Your task to perform on an android device: open chrome and create a bookmark for the current page Image 0: 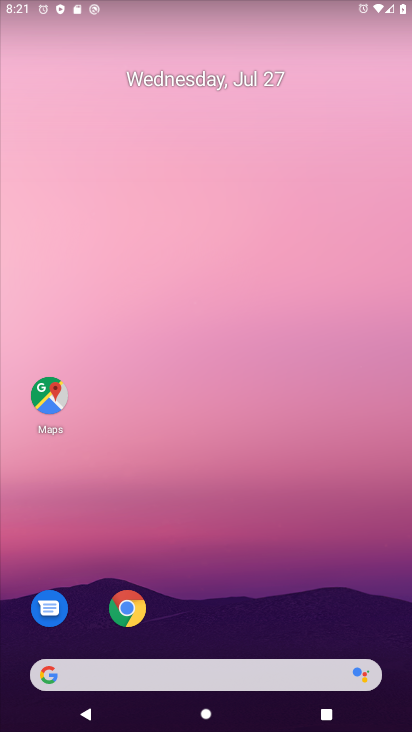
Step 0: drag from (263, 518) to (299, 182)
Your task to perform on an android device: open chrome and create a bookmark for the current page Image 1: 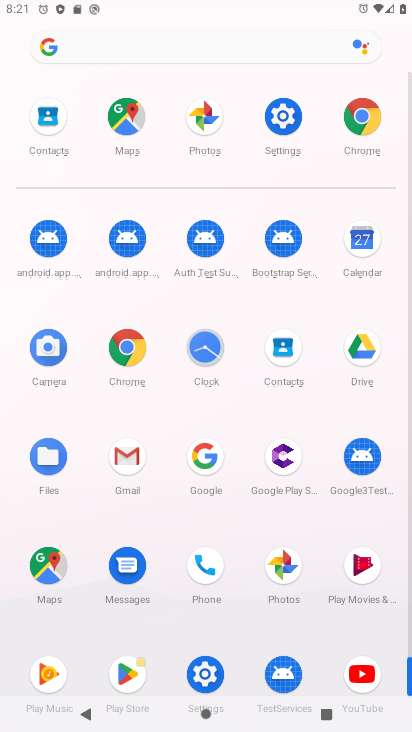
Step 1: click (134, 343)
Your task to perform on an android device: open chrome and create a bookmark for the current page Image 2: 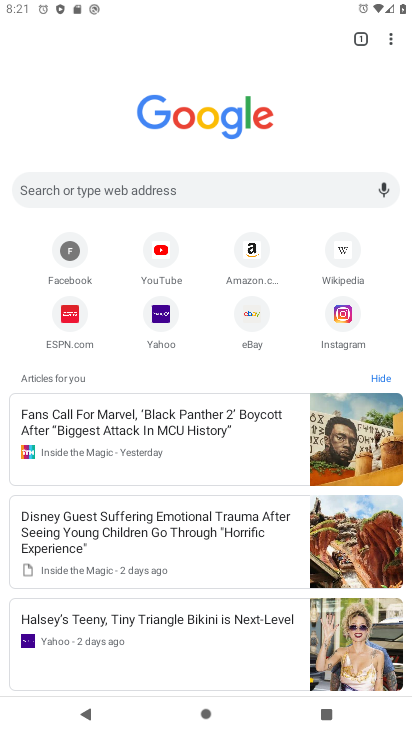
Step 2: click (398, 40)
Your task to perform on an android device: open chrome and create a bookmark for the current page Image 3: 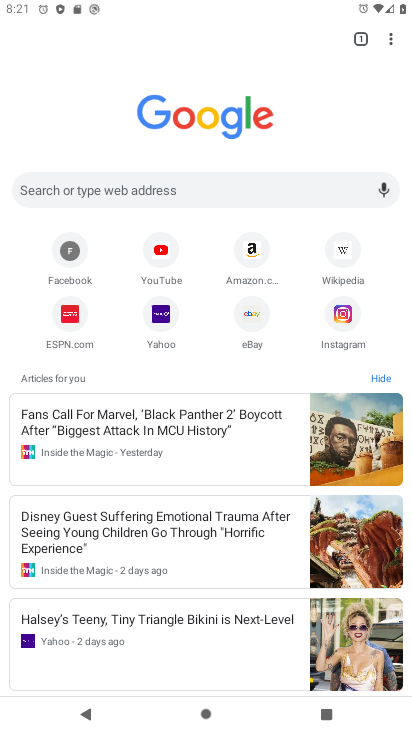
Step 3: click (400, 42)
Your task to perform on an android device: open chrome and create a bookmark for the current page Image 4: 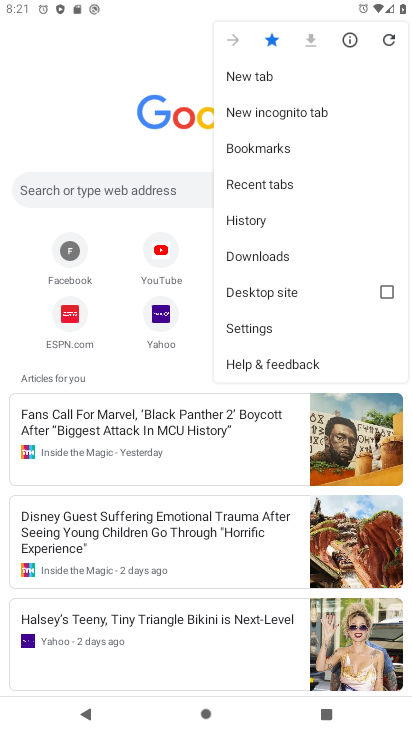
Step 4: click (275, 147)
Your task to perform on an android device: open chrome and create a bookmark for the current page Image 5: 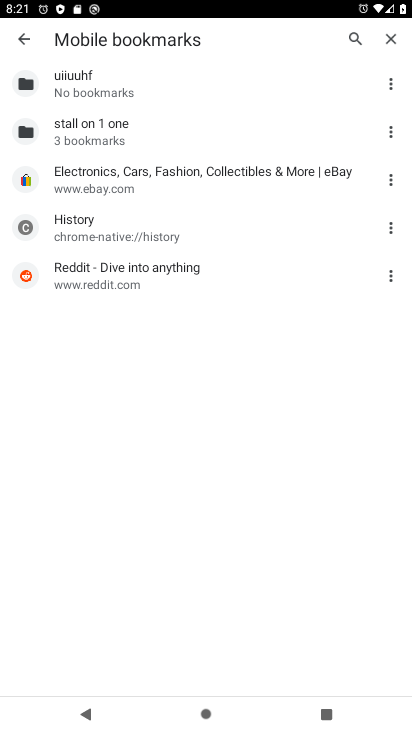
Step 5: task complete